Your task to perform on an android device: open a bookmark in the chrome app Image 0: 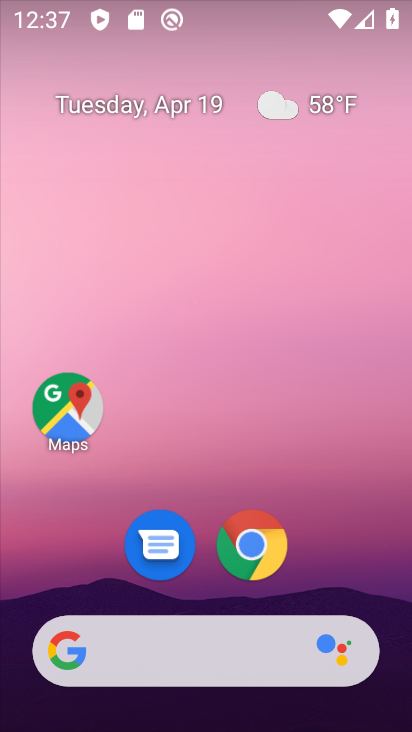
Step 0: drag from (228, 447) to (290, 33)
Your task to perform on an android device: open a bookmark in the chrome app Image 1: 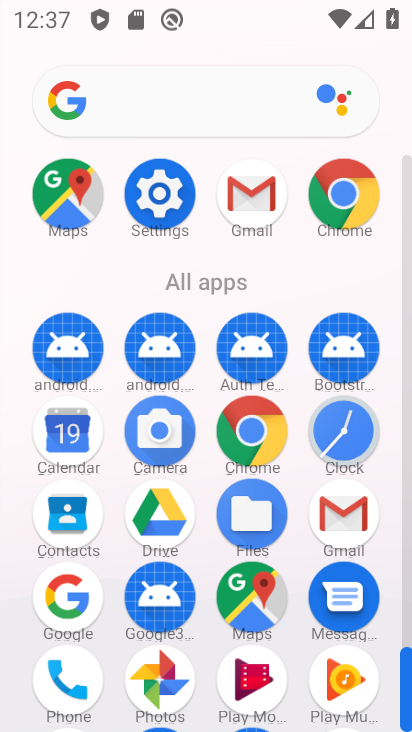
Step 1: click (70, 436)
Your task to perform on an android device: open a bookmark in the chrome app Image 2: 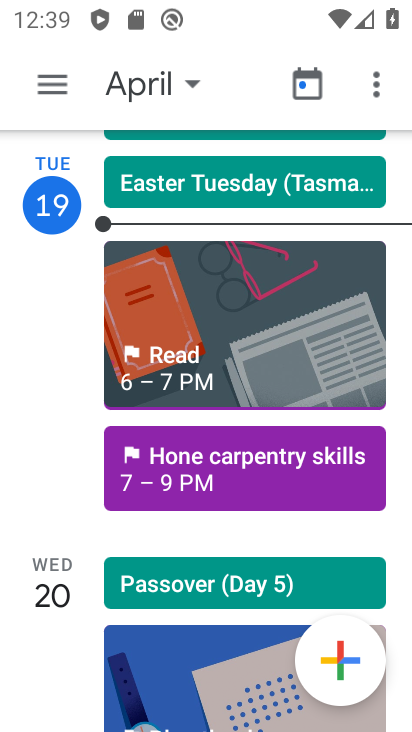
Step 2: press home button
Your task to perform on an android device: open a bookmark in the chrome app Image 3: 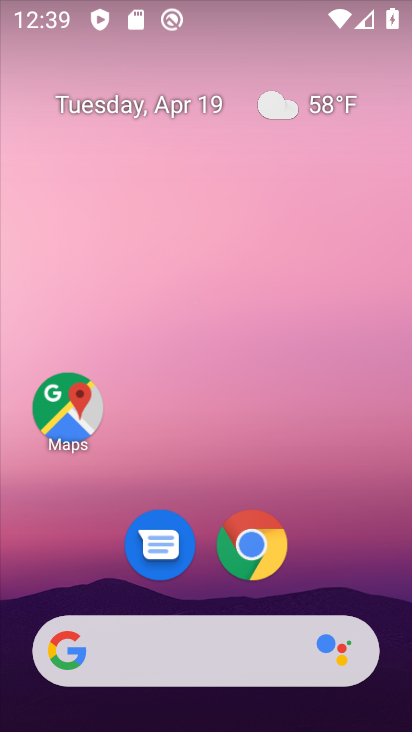
Step 3: click (269, 552)
Your task to perform on an android device: open a bookmark in the chrome app Image 4: 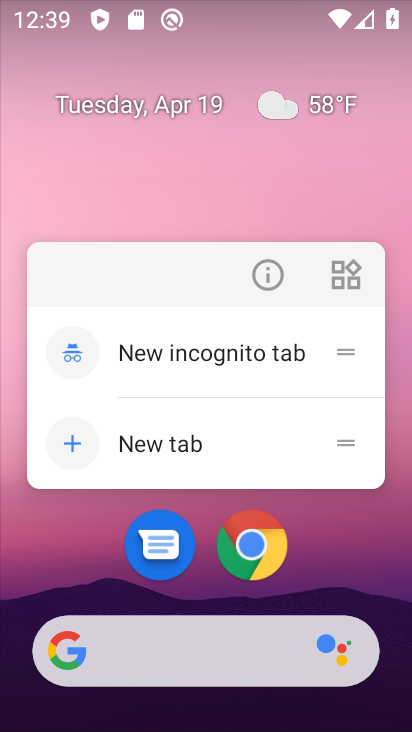
Step 4: click (269, 552)
Your task to perform on an android device: open a bookmark in the chrome app Image 5: 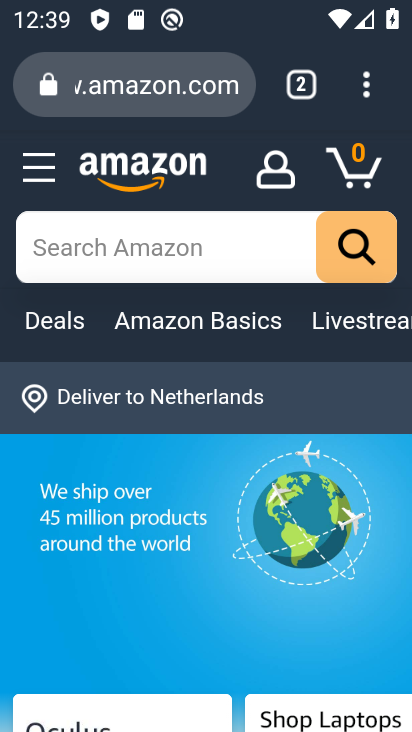
Step 5: click (366, 88)
Your task to perform on an android device: open a bookmark in the chrome app Image 6: 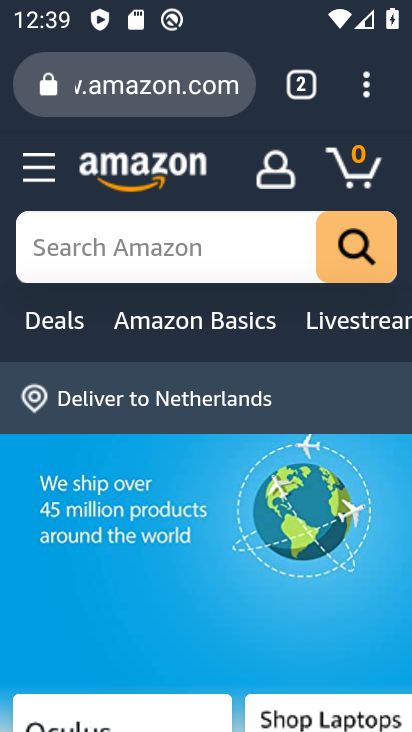
Step 6: click (366, 86)
Your task to perform on an android device: open a bookmark in the chrome app Image 7: 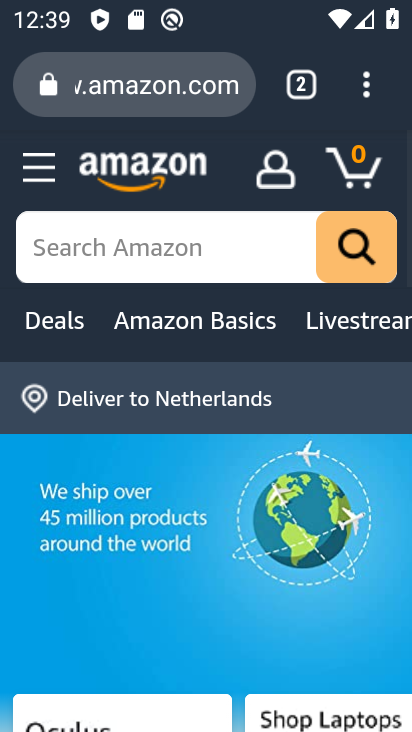
Step 7: click (363, 84)
Your task to perform on an android device: open a bookmark in the chrome app Image 8: 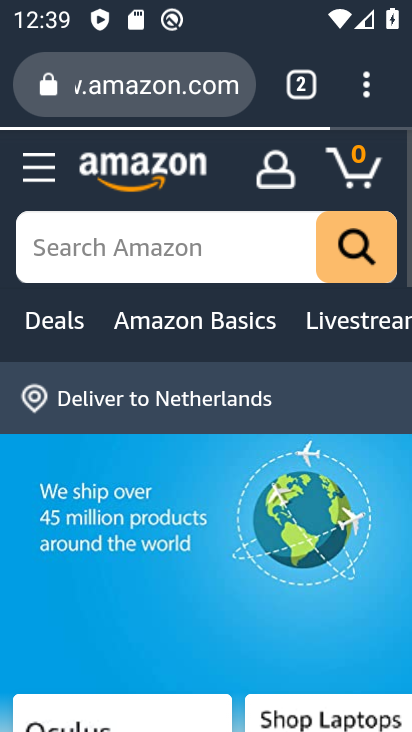
Step 8: click (372, 84)
Your task to perform on an android device: open a bookmark in the chrome app Image 9: 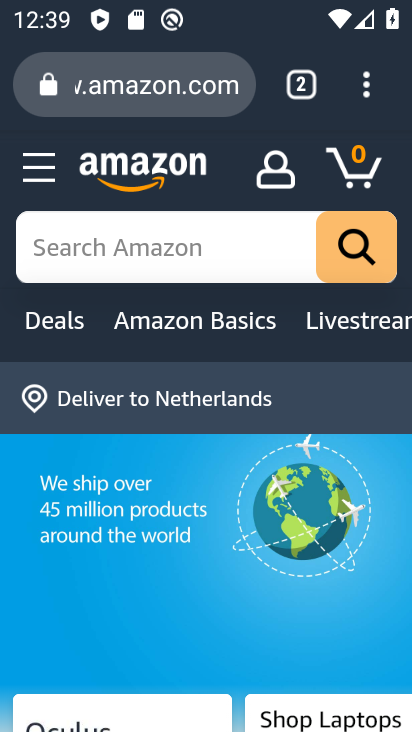
Step 9: click (365, 85)
Your task to perform on an android device: open a bookmark in the chrome app Image 10: 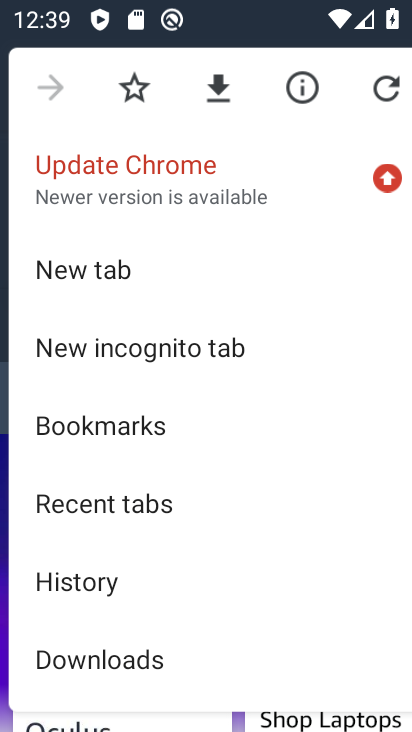
Step 10: click (120, 414)
Your task to perform on an android device: open a bookmark in the chrome app Image 11: 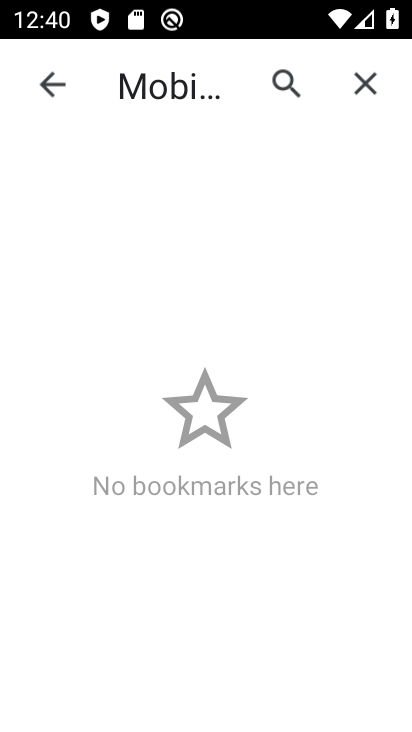
Step 11: task complete